Your task to perform on an android device: Go to Yahoo.com Image 0: 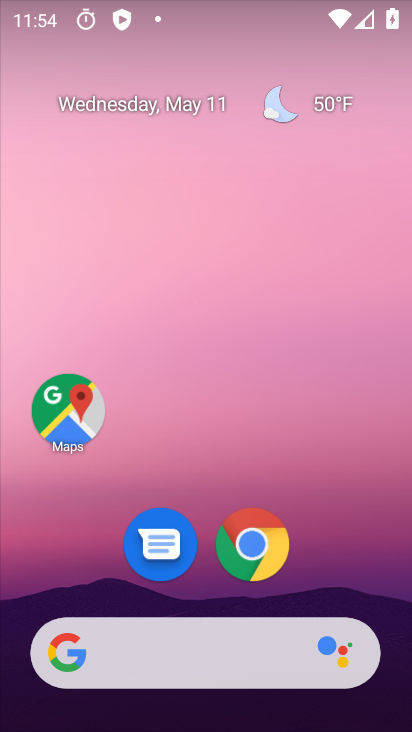
Step 0: drag from (118, 648) to (92, 29)
Your task to perform on an android device: Go to Yahoo.com Image 1: 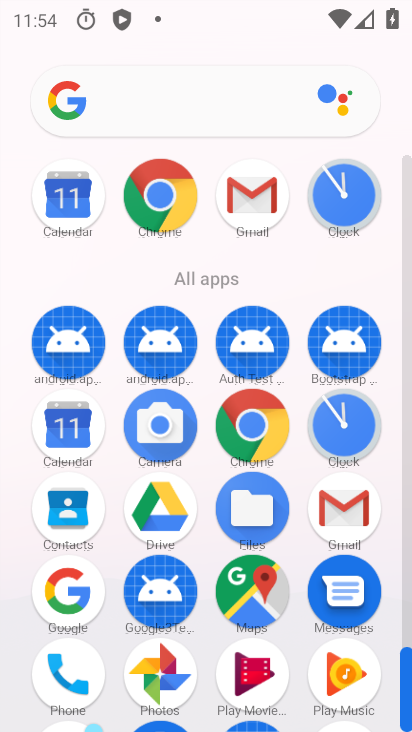
Step 1: click (166, 214)
Your task to perform on an android device: Go to Yahoo.com Image 2: 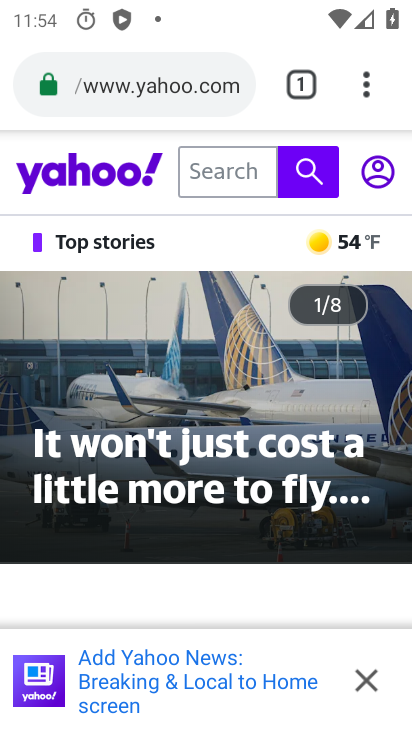
Step 2: task complete